Your task to perform on an android device: manage bookmarks in the chrome app Image 0: 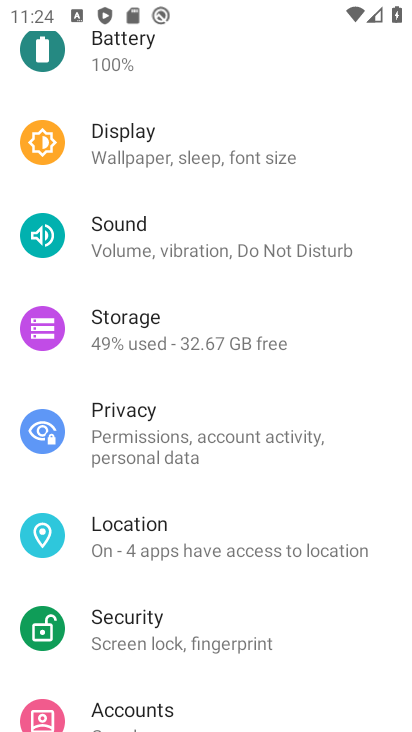
Step 0: press home button
Your task to perform on an android device: manage bookmarks in the chrome app Image 1: 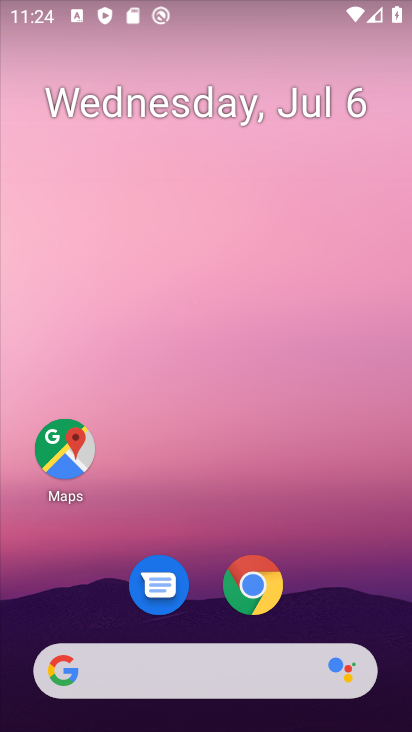
Step 1: click (261, 592)
Your task to perform on an android device: manage bookmarks in the chrome app Image 2: 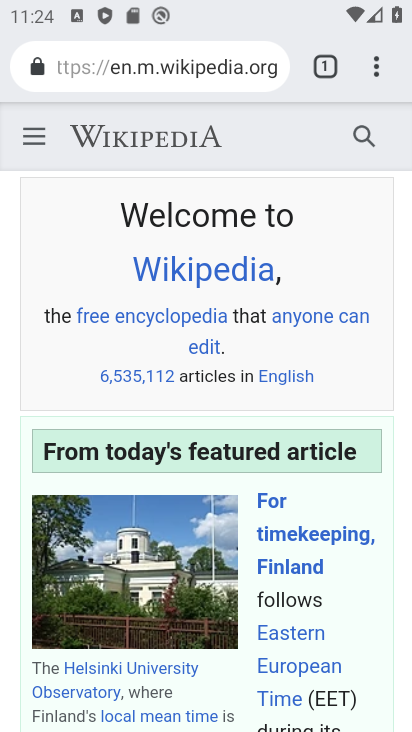
Step 2: click (378, 68)
Your task to perform on an android device: manage bookmarks in the chrome app Image 3: 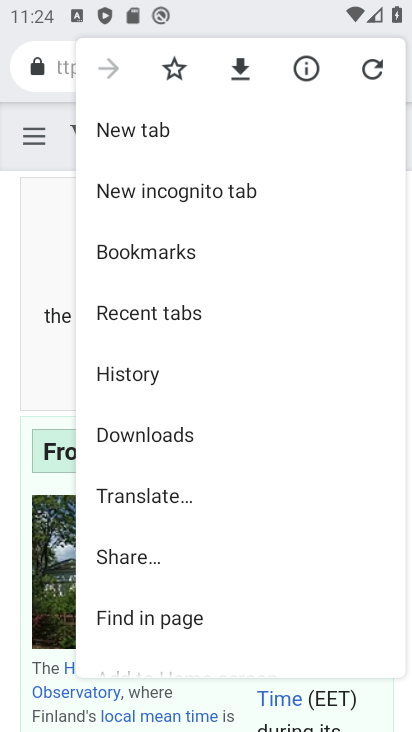
Step 3: click (190, 245)
Your task to perform on an android device: manage bookmarks in the chrome app Image 4: 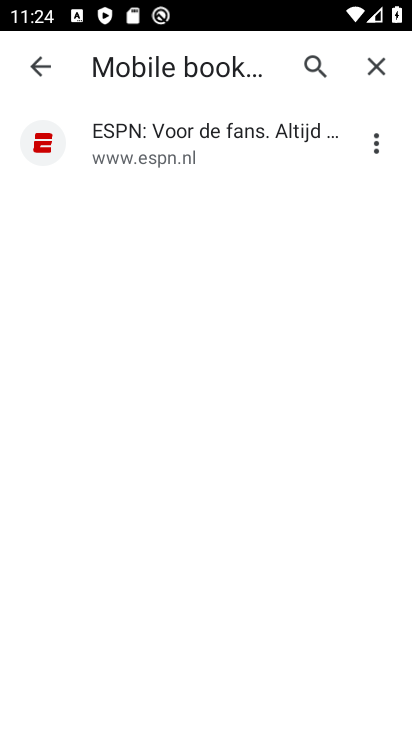
Step 4: click (372, 147)
Your task to perform on an android device: manage bookmarks in the chrome app Image 5: 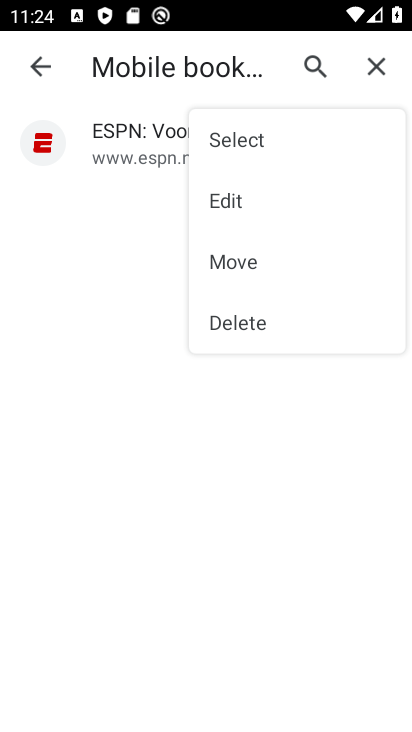
Step 5: click (269, 193)
Your task to perform on an android device: manage bookmarks in the chrome app Image 6: 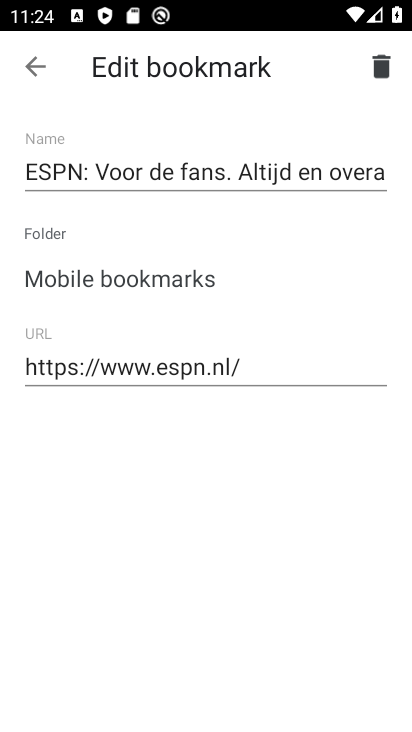
Step 6: click (41, 60)
Your task to perform on an android device: manage bookmarks in the chrome app Image 7: 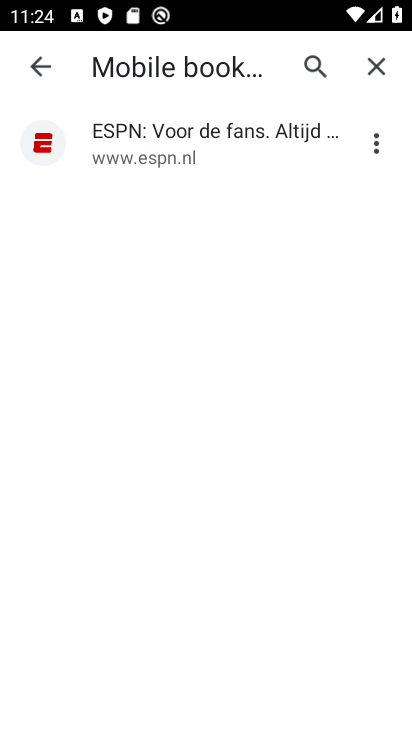
Step 7: task complete